Your task to perform on an android device: Go to network settings Image 0: 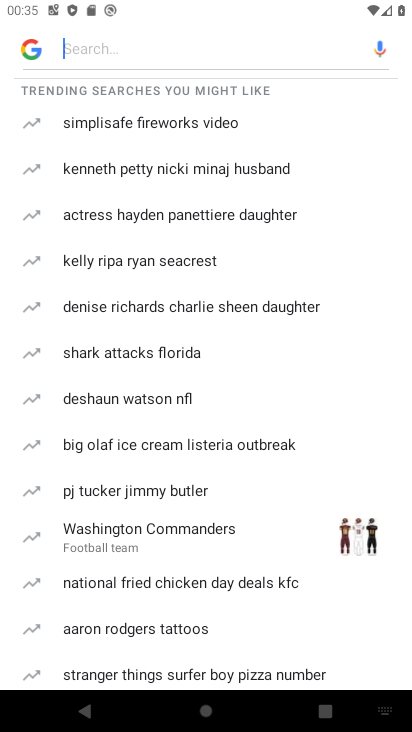
Step 0: press home button
Your task to perform on an android device: Go to network settings Image 1: 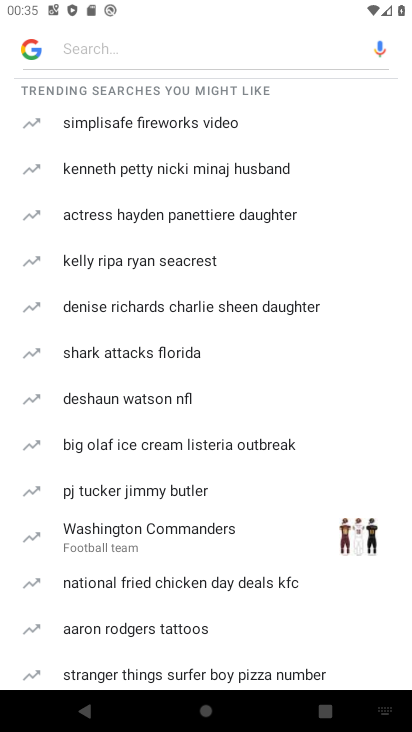
Step 1: press home button
Your task to perform on an android device: Go to network settings Image 2: 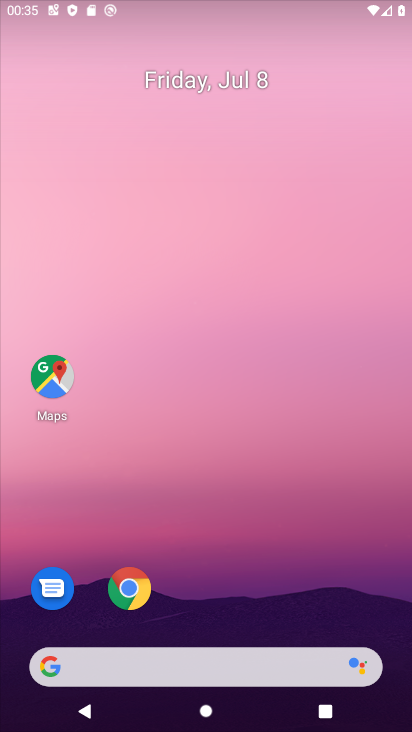
Step 2: drag from (217, 564) to (266, 204)
Your task to perform on an android device: Go to network settings Image 3: 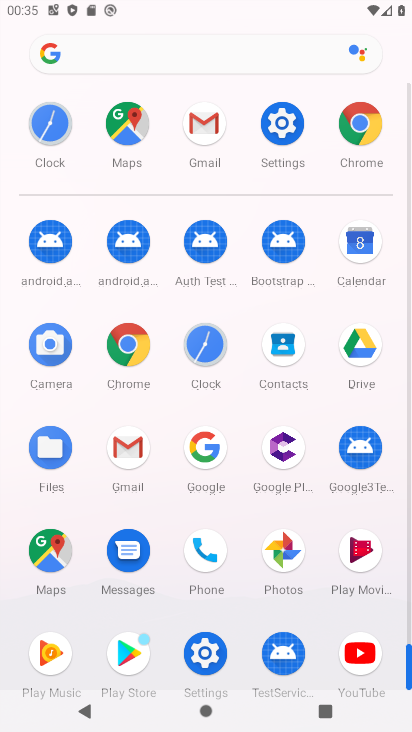
Step 3: click (289, 119)
Your task to perform on an android device: Go to network settings Image 4: 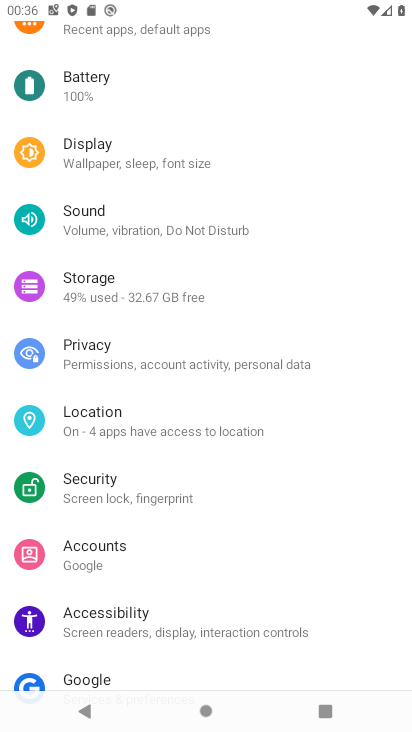
Step 4: drag from (194, 569) to (236, 175)
Your task to perform on an android device: Go to network settings Image 5: 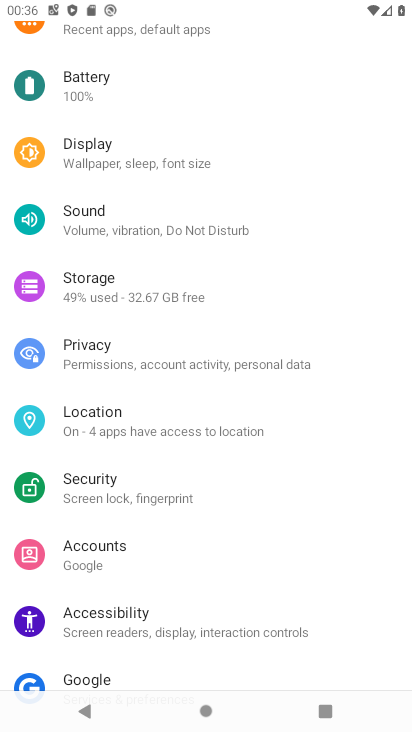
Step 5: drag from (237, 167) to (203, 724)
Your task to perform on an android device: Go to network settings Image 6: 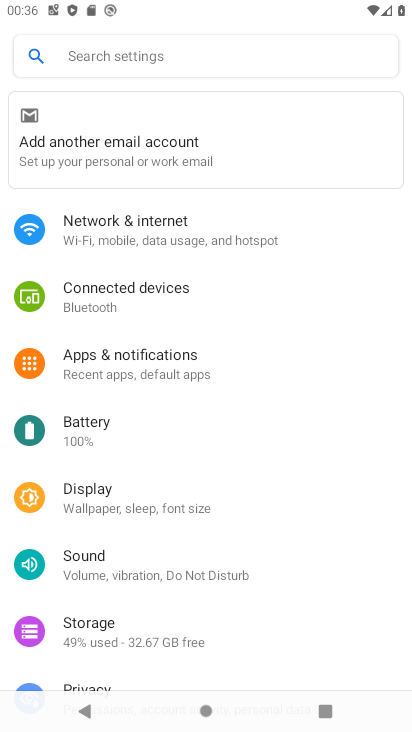
Step 6: click (128, 225)
Your task to perform on an android device: Go to network settings Image 7: 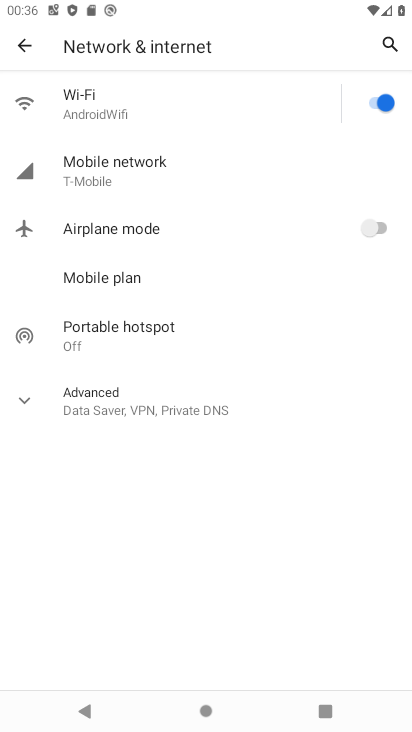
Step 7: task complete